Your task to perform on an android device: Search for Mexican restaurants on Maps Image 0: 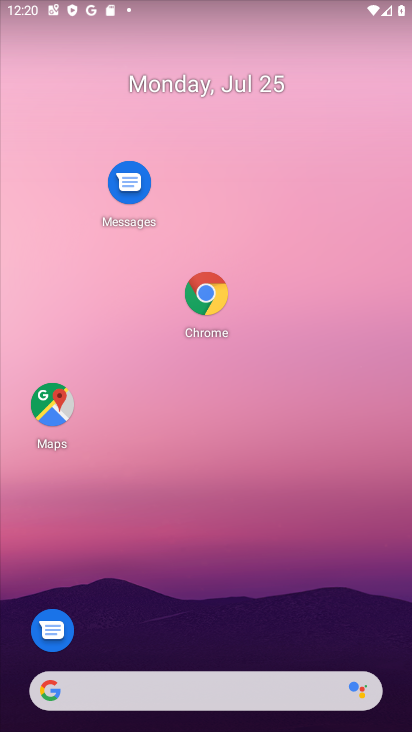
Step 0: click (46, 396)
Your task to perform on an android device: Search for Mexican restaurants on Maps Image 1: 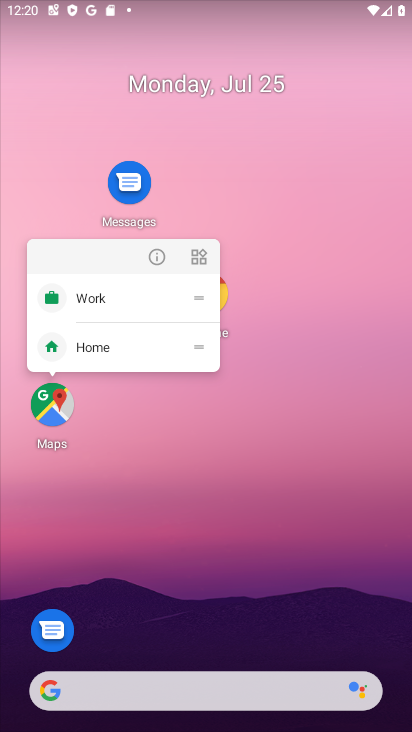
Step 1: click (56, 409)
Your task to perform on an android device: Search for Mexican restaurants on Maps Image 2: 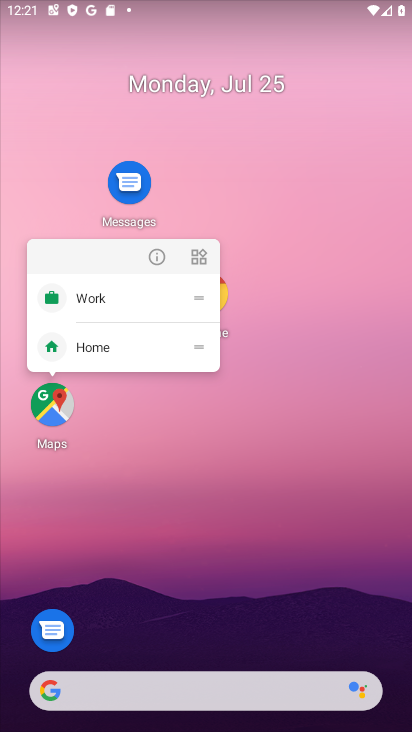
Step 2: click (54, 408)
Your task to perform on an android device: Search for Mexican restaurants on Maps Image 3: 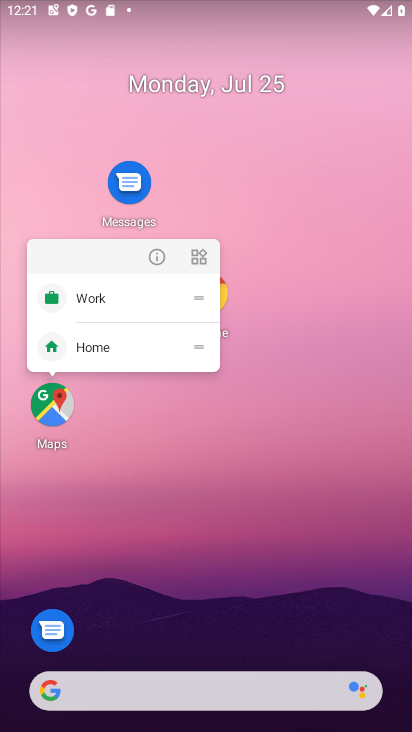
Step 3: click (38, 389)
Your task to perform on an android device: Search for Mexican restaurants on Maps Image 4: 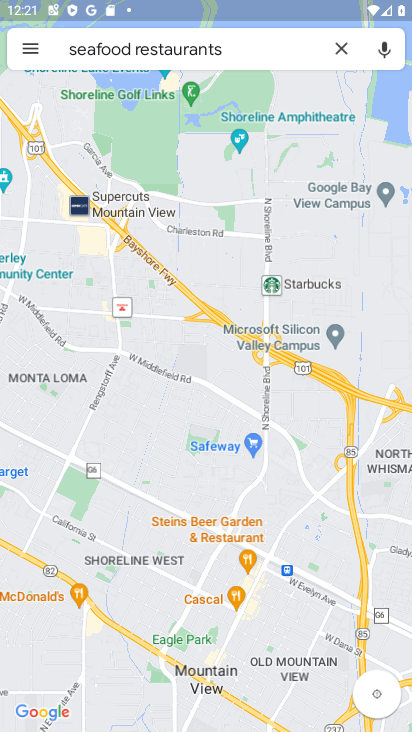
Step 4: click (336, 55)
Your task to perform on an android device: Search for Mexican restaurants on Maps Image 5: 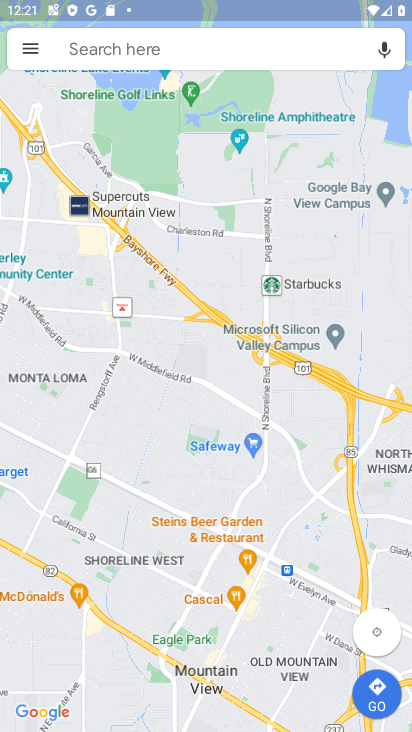
Step 5: click (255, 50)
Your task to perform on an android device: Search for Mexican restaurants on Maps Image 6: 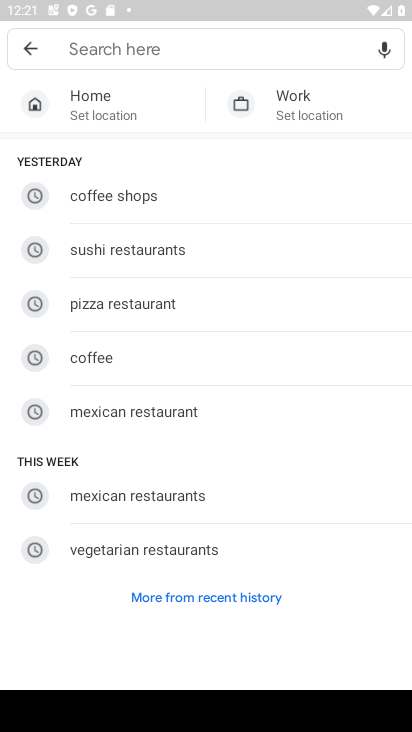
Step 6: type "Mexican restaurants"
Your task to perform on an android device: Search for Mexican restaurants on Maps Image 7: 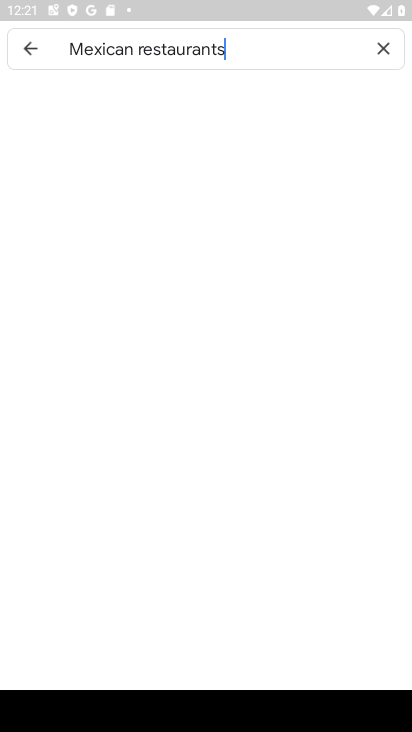
Step 7: type ""
Your task to perform on an android device: Search for Mexican restaurants on Maps Image 8: 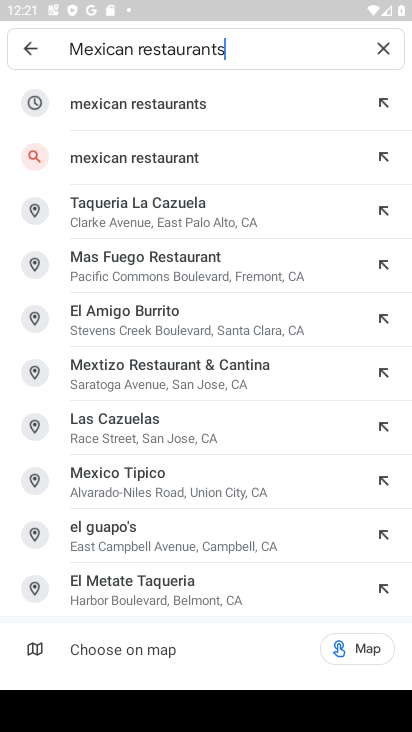
Step 8: click (123, 102)
Your task to perform on an android device: Search for Mexican restaurants on Maps Image 9: 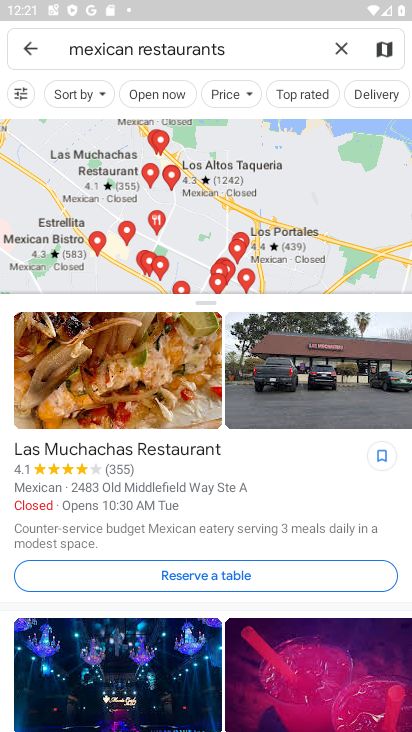
Step 9: task complete